Your task to perform on an android device: open app "TextNow: Call + Text Unlimited" (install if not already installed), go to login, and select forgot password Image 0: 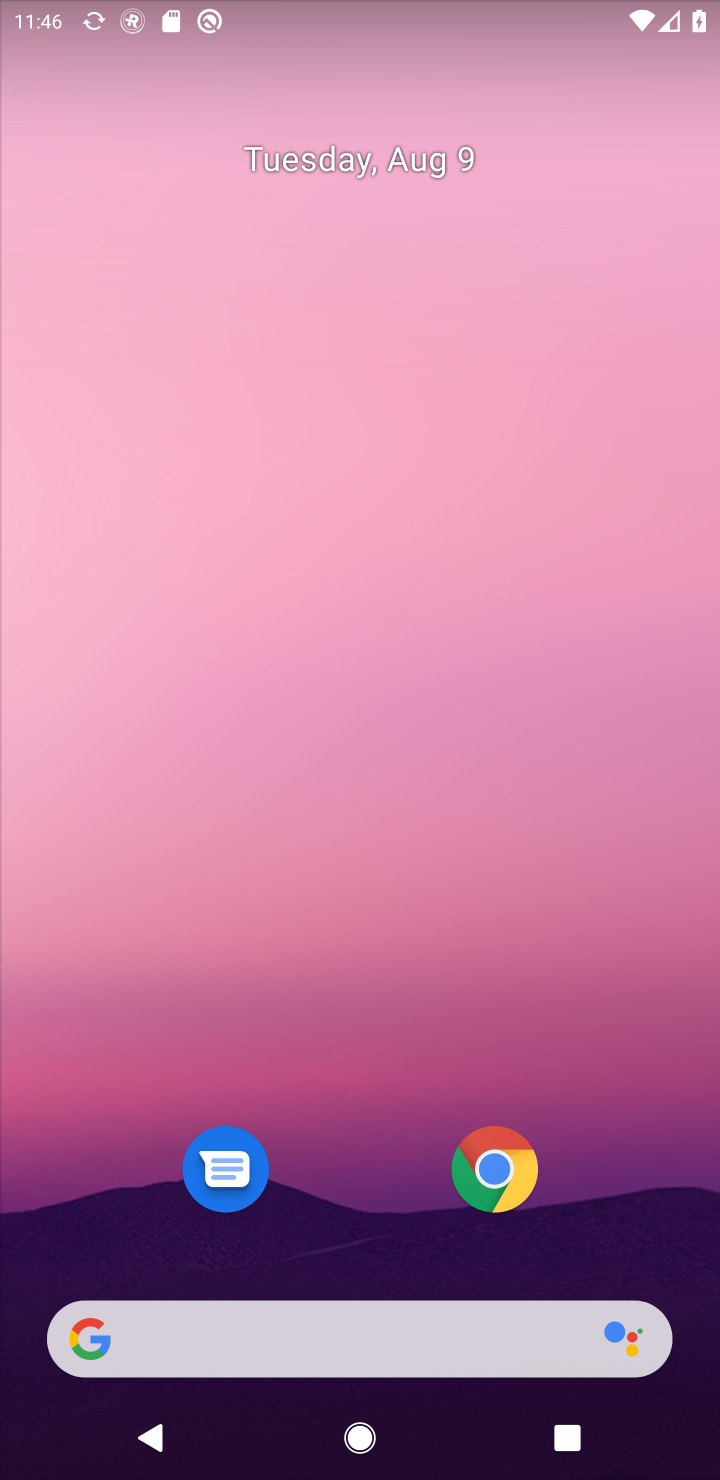
Step 0: press home button
Your task to perform on an android device: open app "TextNow: Call + Text Unlimited" (install if not already installed), go to login, and select forgot password Image 1: 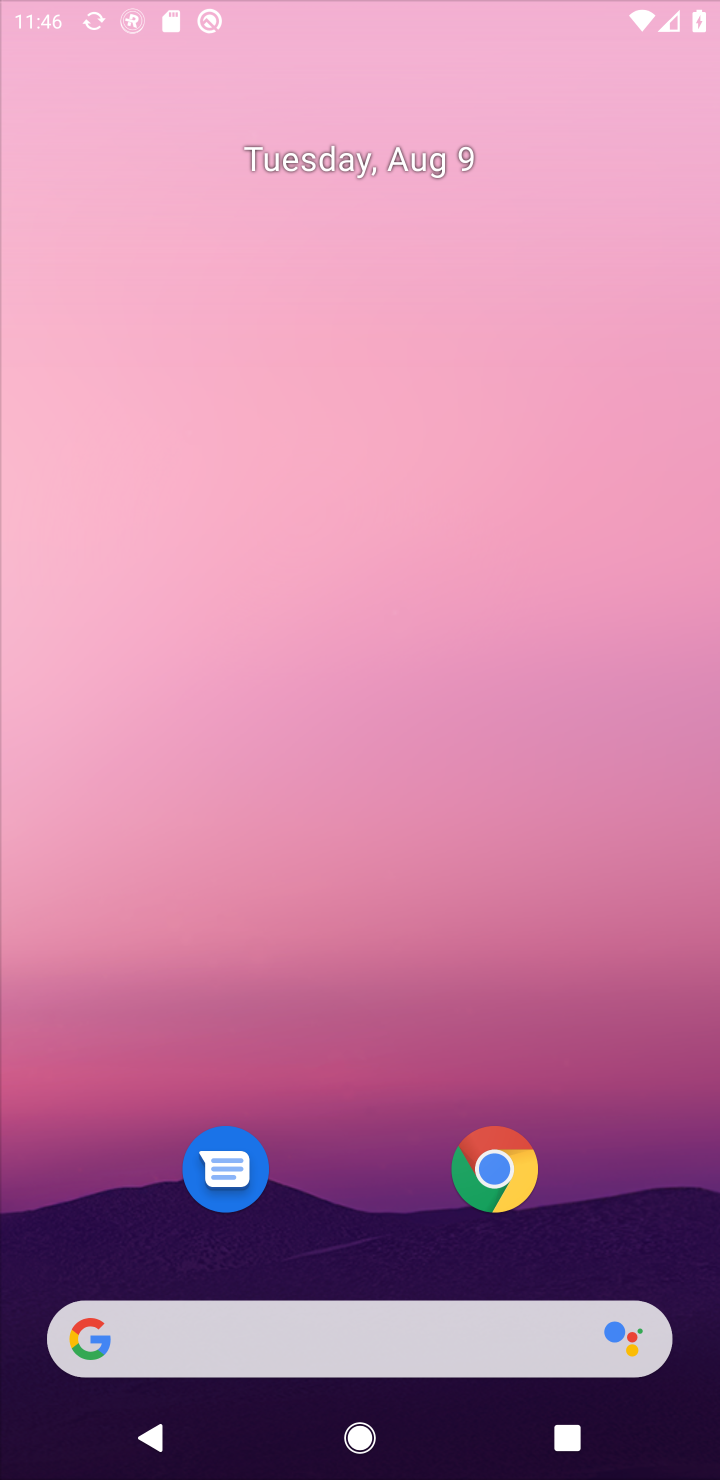
Step 1: drag from (621, 1228) to (603, 44)
Your task to perform on an android device: open app "TextNow: Call + Text Unlimited" (install if not already installed), go to login, and select forgot password Image 2: 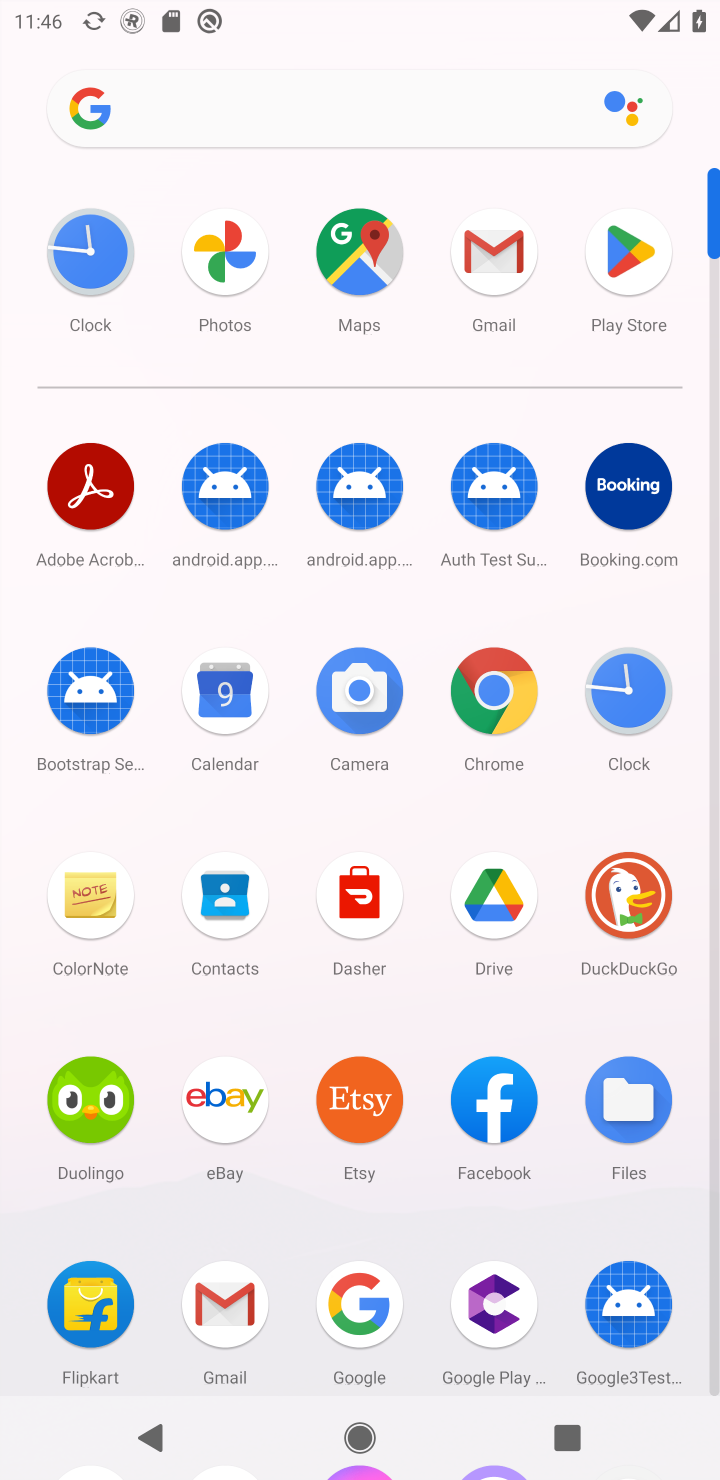
Step 2: click (634, 249)
Your task to perform on an android device: open app "TextNow: Call + Text Unlimited" (install if not already installed), go to login, and select forgot password Image 3: 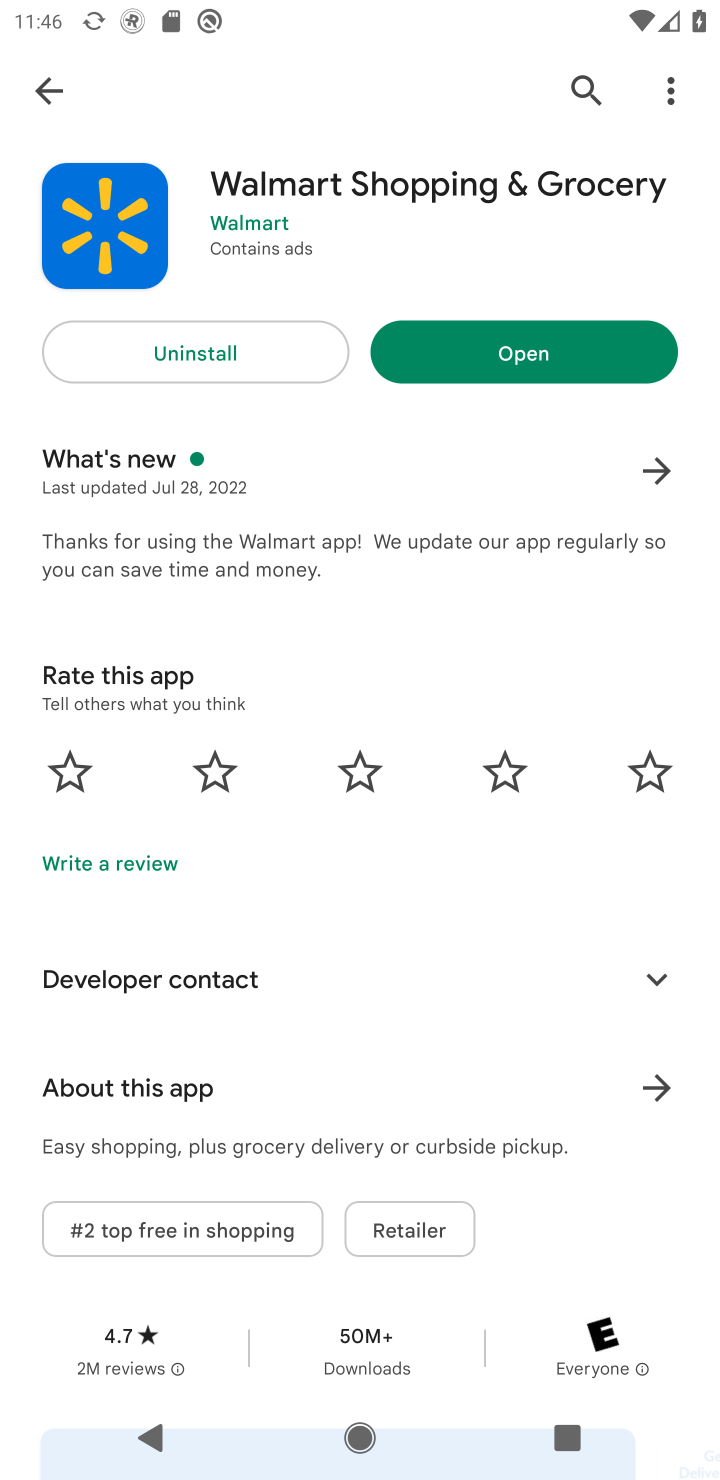
Step 3: click (580, 68)
Your task to perform on an android device: open app "TextNow: Call + Text Unlimited" (install if not already installed), go to login, and select forgot password Image 4: 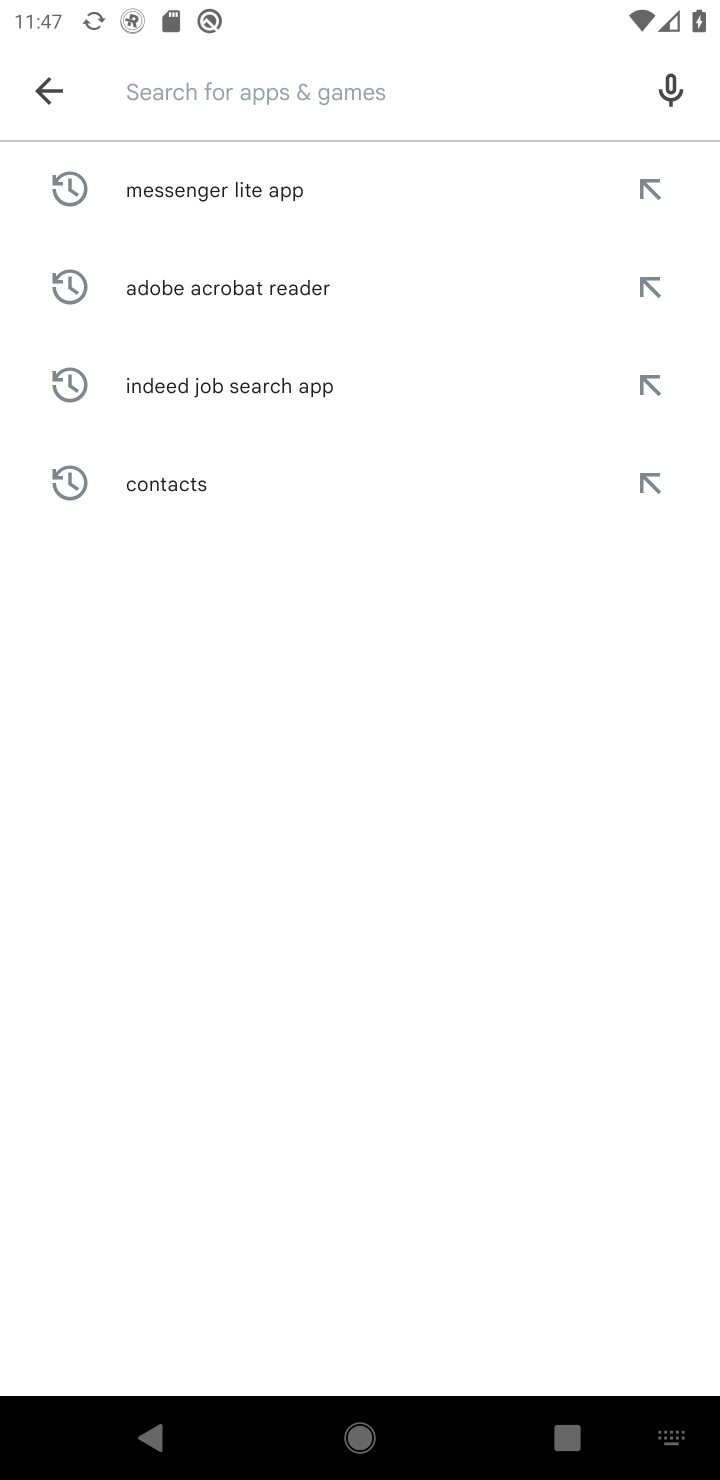
Step 4: press enter
Your task to perform on an android device: open app "TextNow: Call + Text Unlimited" (install if not already installed), go to login, and select forgot password Image 5: 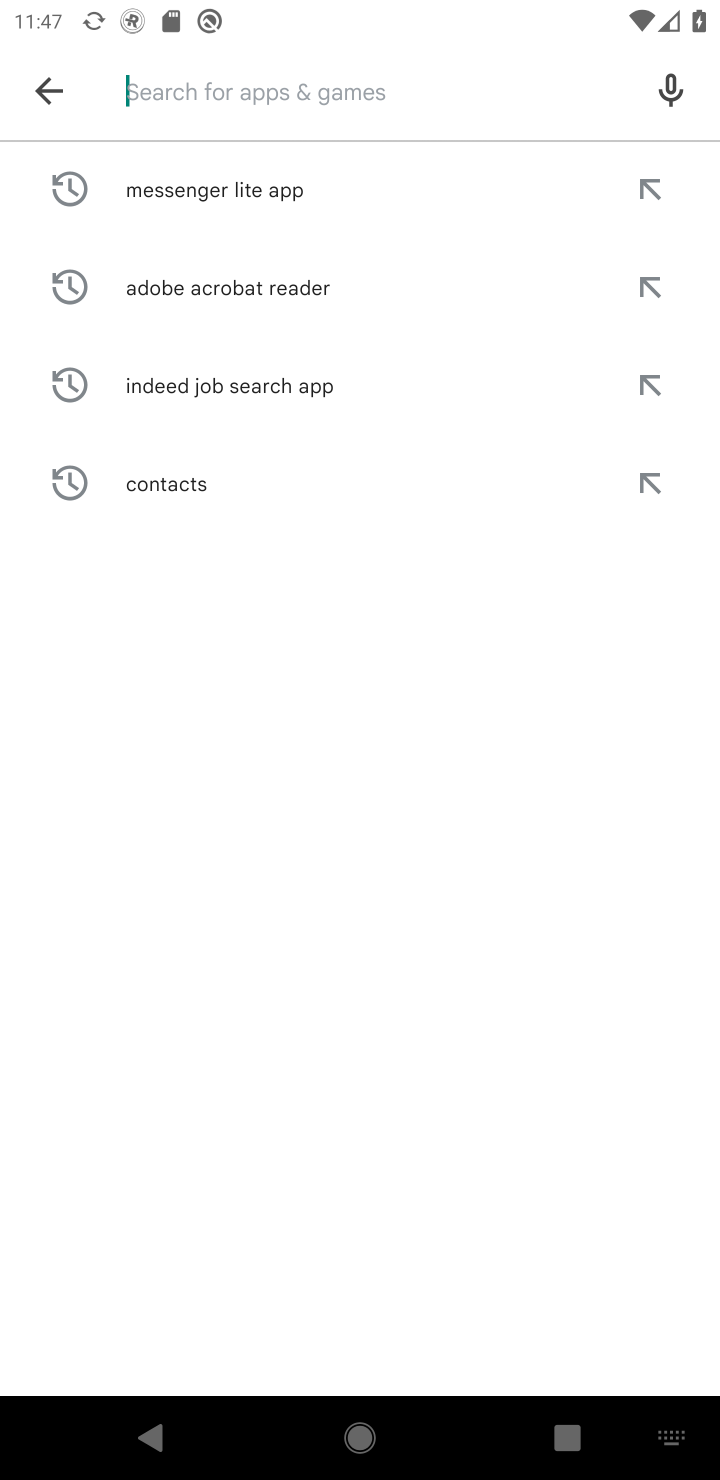
Step 5: type "textnow call text unlimited"
Your task to perform on an android device: open app "TextNow: Call + Text Unlimited" (install if not already installed), go to login, and select forgot password Image 6: 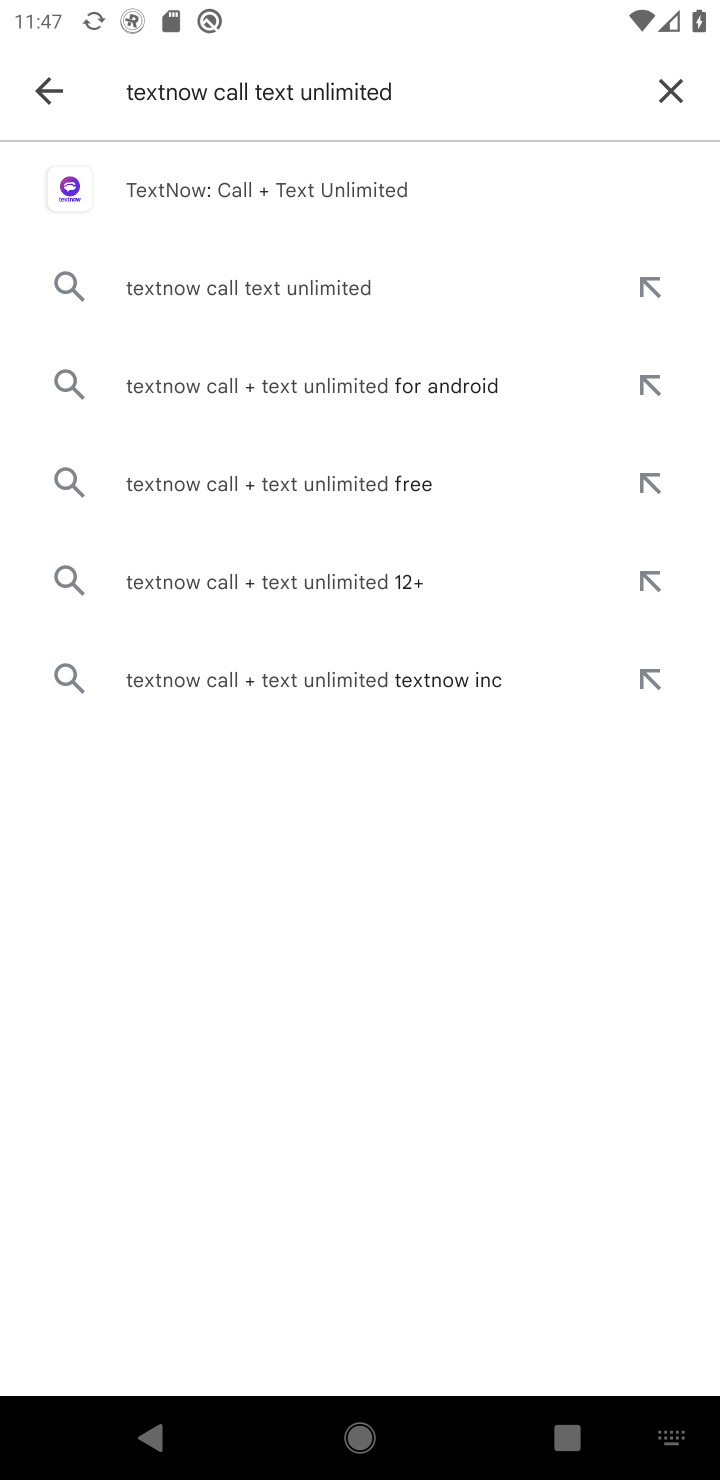
Step 6: click (340, 185)
Your task to perform on an android device: open app "TextNow: Call + Text Unlimited" (install if not already installed), go to login, and select forgot password Image 7: 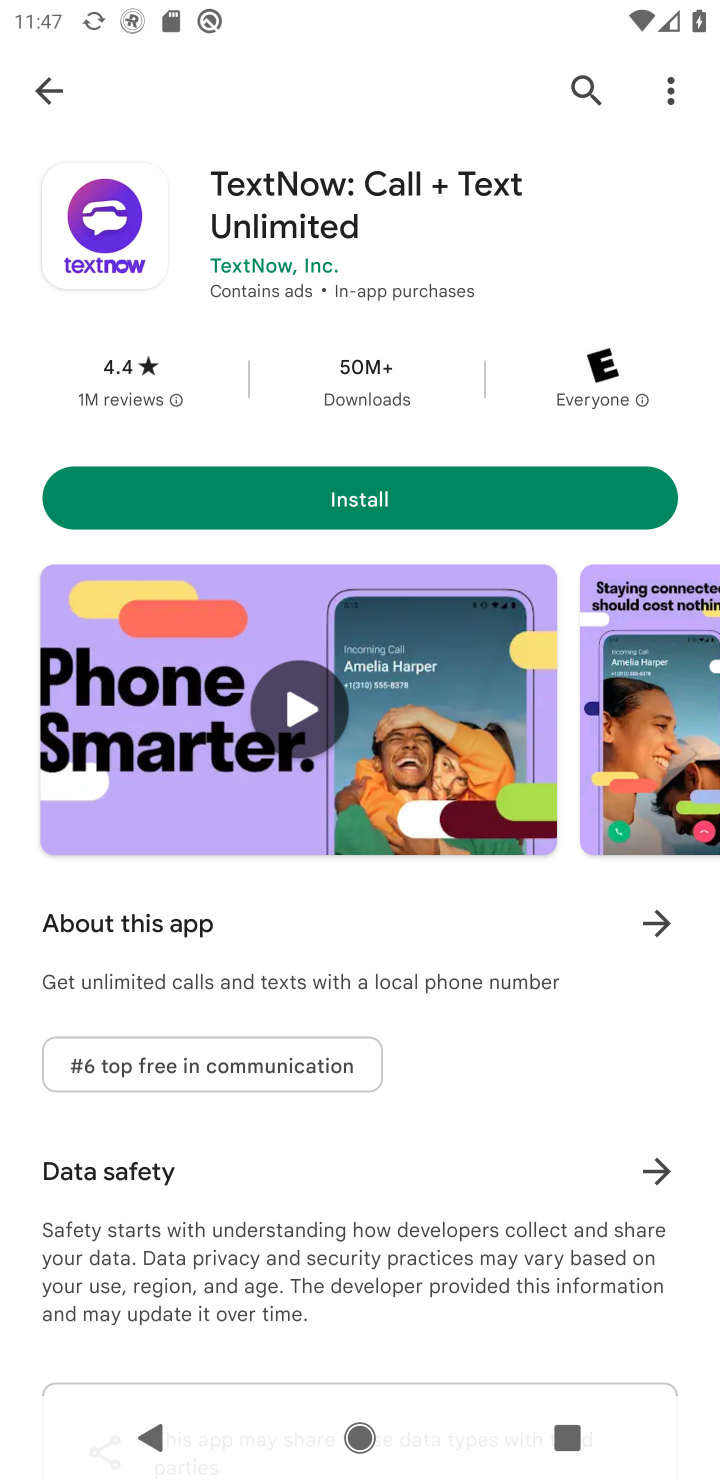
Step 7: click (577, 496)
Your task to perform on an android device: open app "TextNow: Call + Text Unlimited" (install if not already installed), go to login, and select forgot password Image 8: 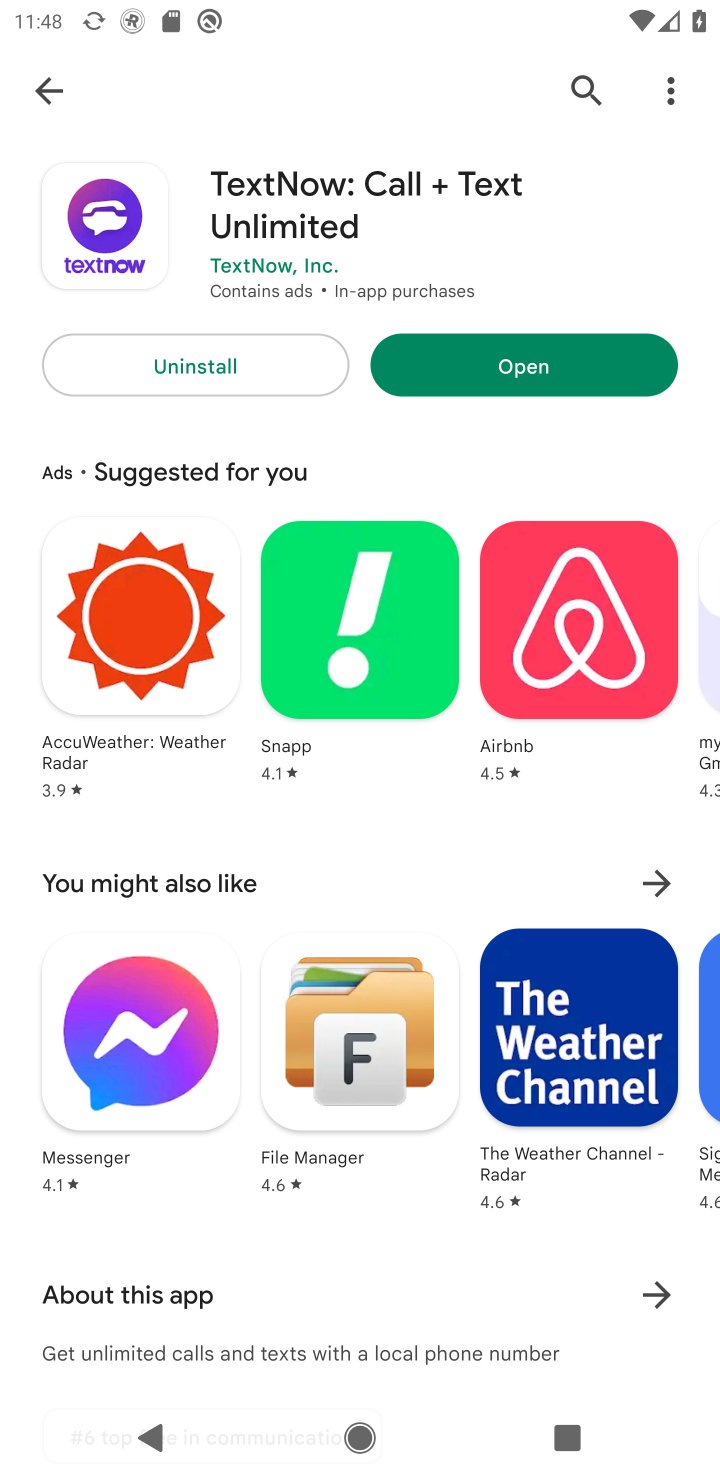
Step 8: click (543, 356)
Your task to perform on an android device: open app "TextNow: Call + Text Unlimited" (install if not already installed), go to login, and select forgot password Image 9: 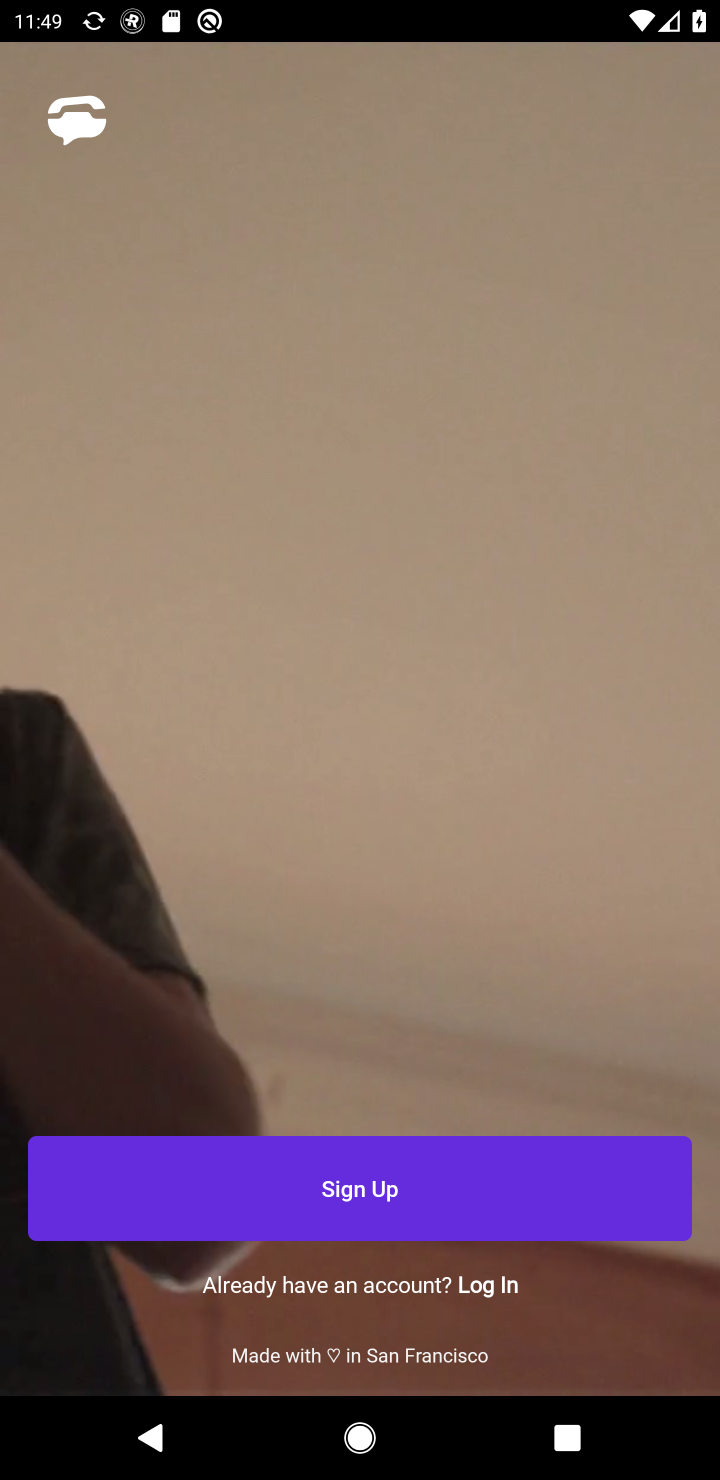
Step 9: click (496, 1292)
Your task to perform on an android device: open app "TextNow: Call + Text Unlimited" (install if not already installed), go to login, and select forgot password Image 10: 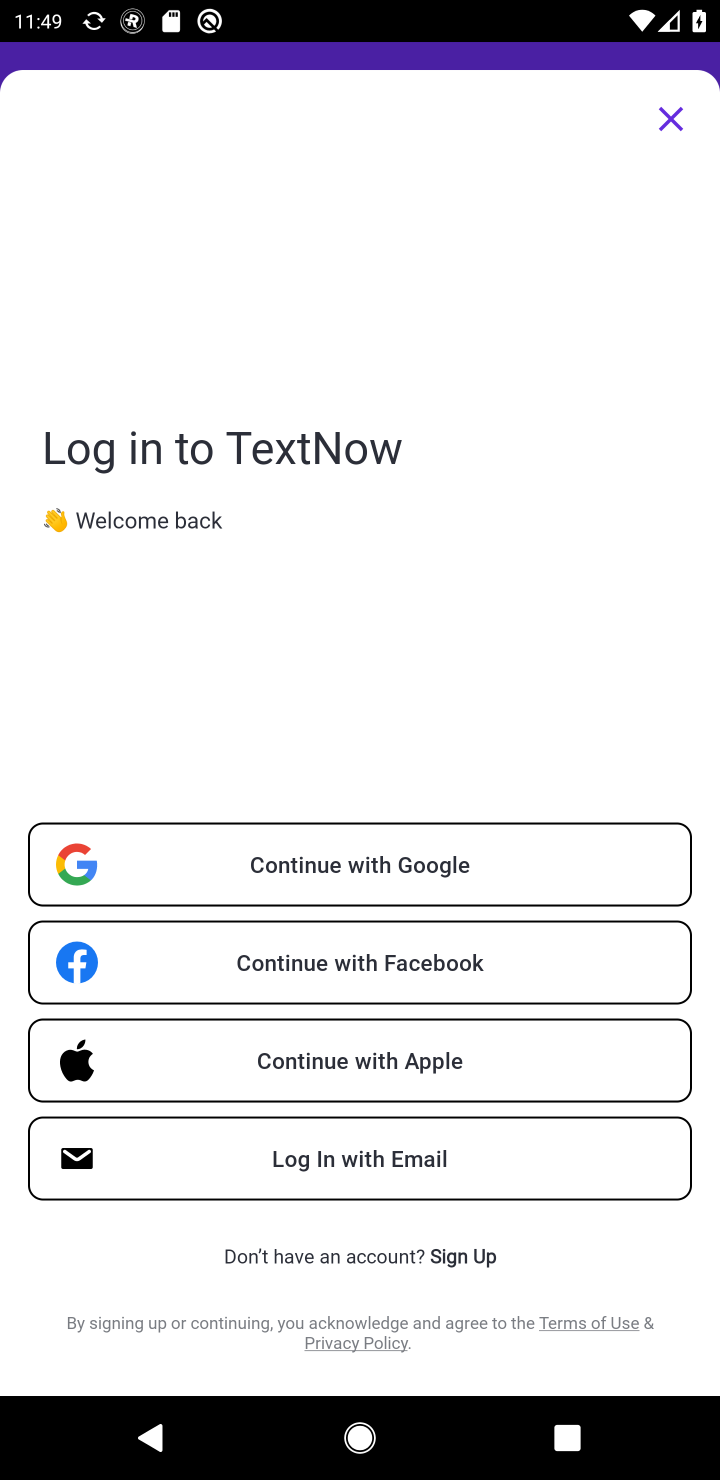
Step 10: task complete